Your task to perform on an android device: all mails in gmail Image 0: 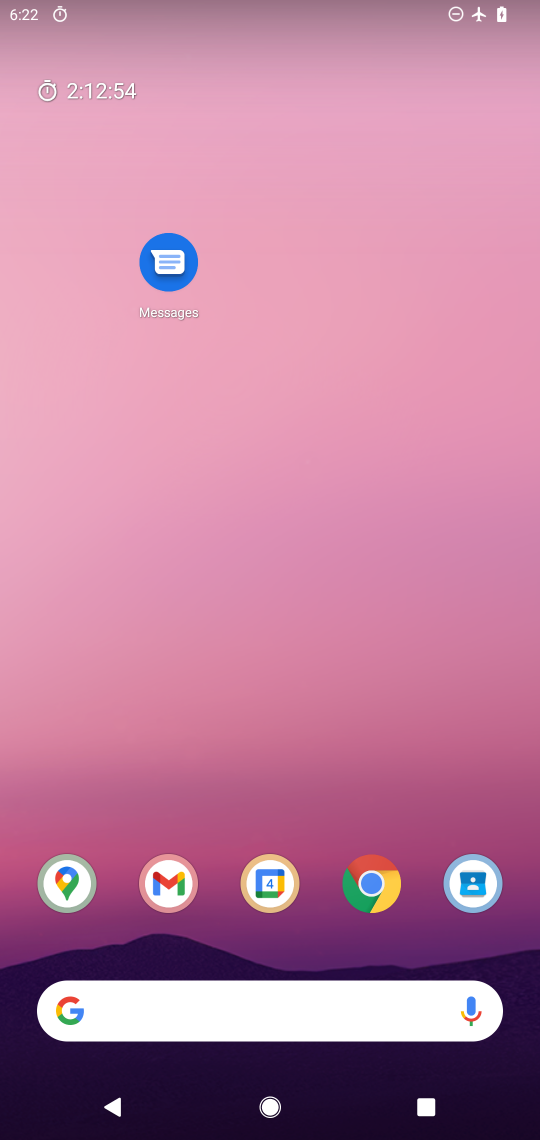
Step 0: drag from (317, 931) to (320, 160)
Your task to perform on an android device: all mails in gmail Image 1: 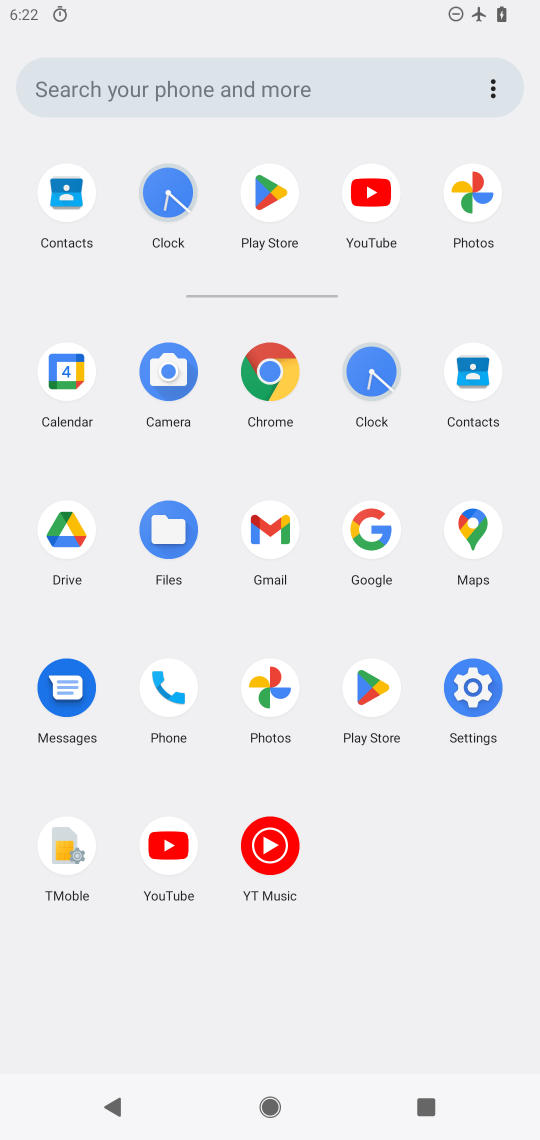
Step 1: click (274, 525)
Your task to perform on an android device: all mails in gmail Image 2: 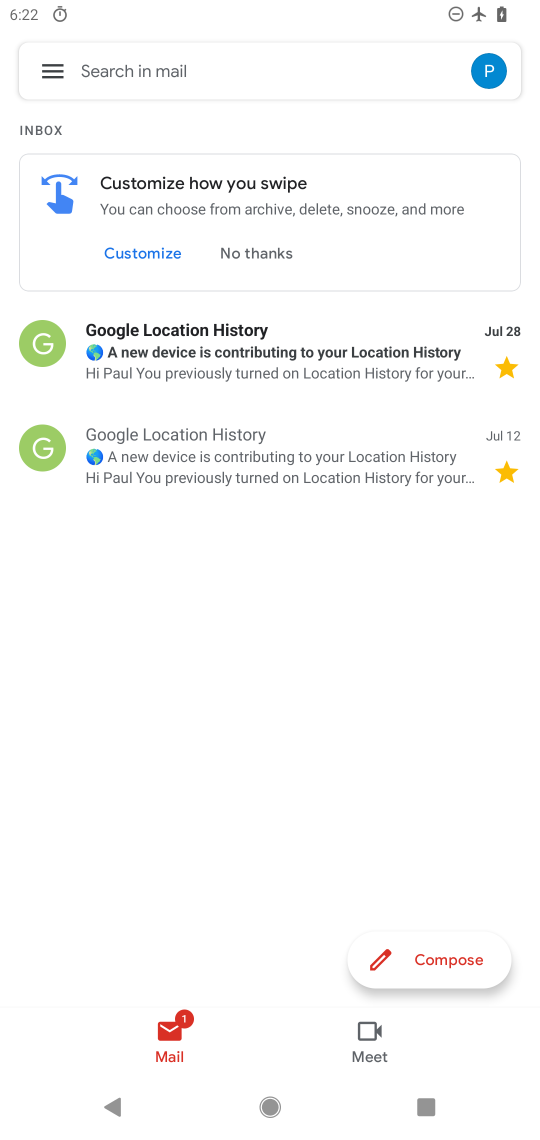
Step 2: click (50, 70)
Your task to perform on an android device: all mails in gmail Image 3: 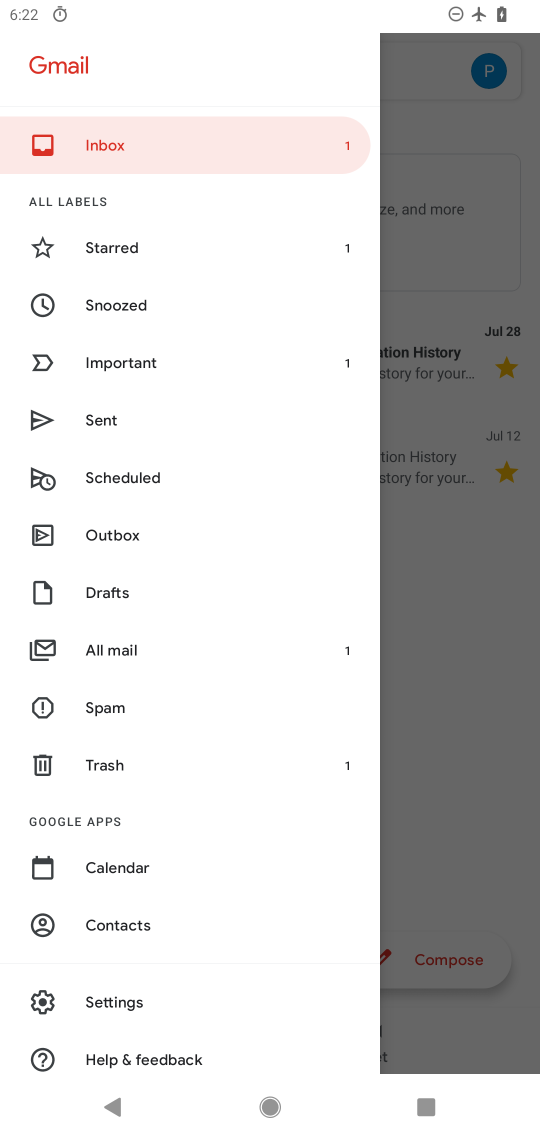
Step 3: click (112, 646)
Your task to perform on an android device: all mails in gmail Image 4: 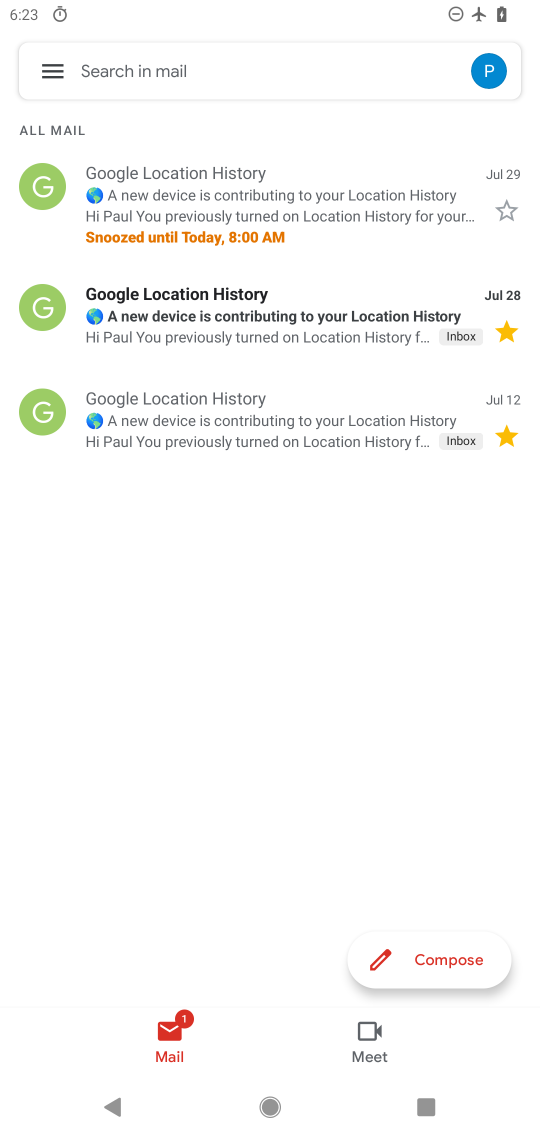
Step 4: task complete